Your task to perform on an android device: Show me recent news Image 0: 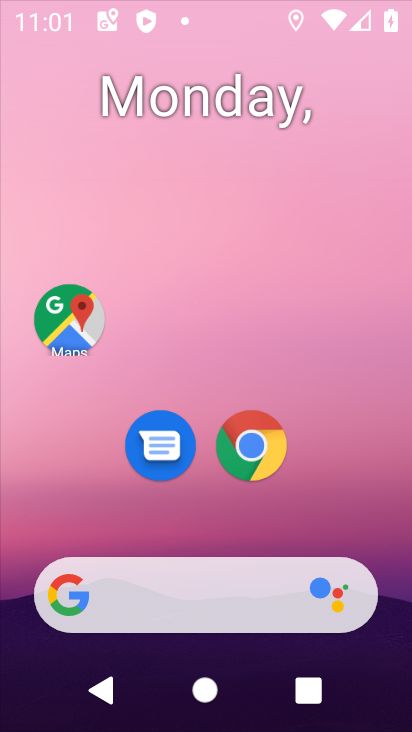
Step 0: drag from (176, 523) to (214, 49)
Your task to perform on an android device: Show me recent news Image 1: 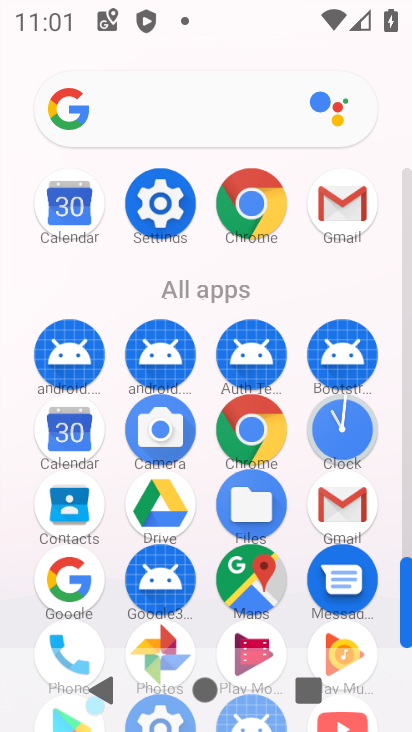
Step 1: press back button
Your task to perform on an android device: Show me recent news Image 2: 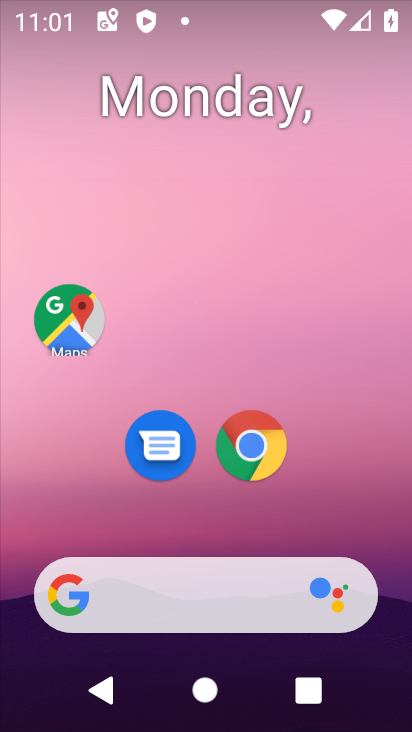
Step 2: click (169, 599)
Your task to perform on an android device: Show me recent news Image 3: 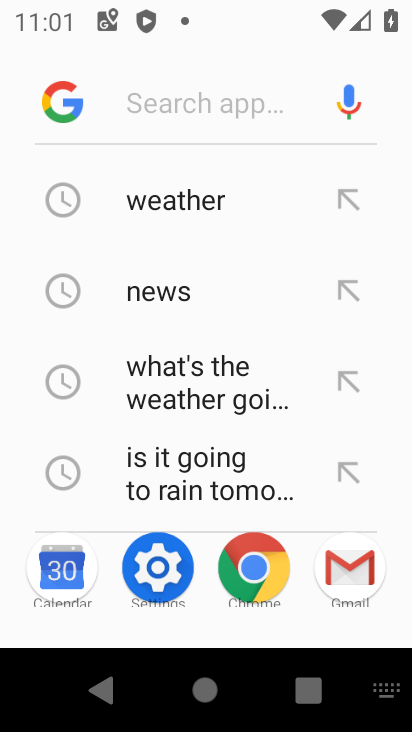
Step 3: click (188, 282)
Your task to perform on an android device: Show me recent news Image 4: 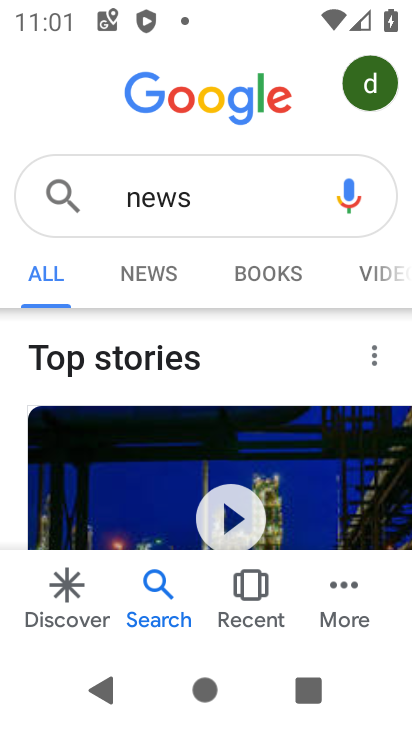
Step 4: task complete